Your task to perform on an android device: toggle improve location accuracy Image 0: 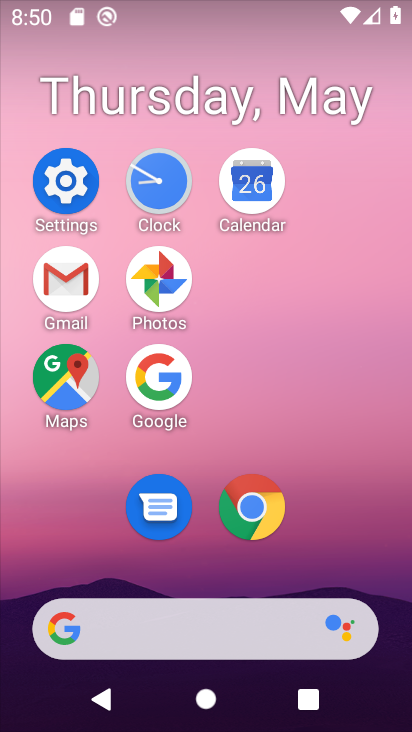
Step 0: click (66, 180)
Your task to perform on an android device: toggle improve location accuracy Image 1: 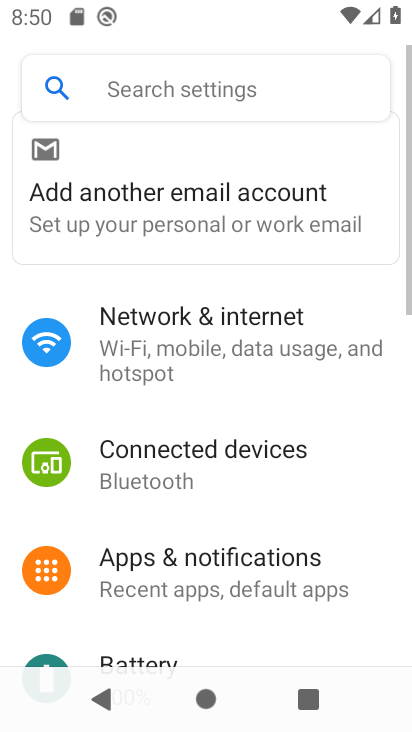
Step 1: drag from (229, 612) to (244, 241)
Your task to perform on an android device: toggle improve location accuracy Image 2: 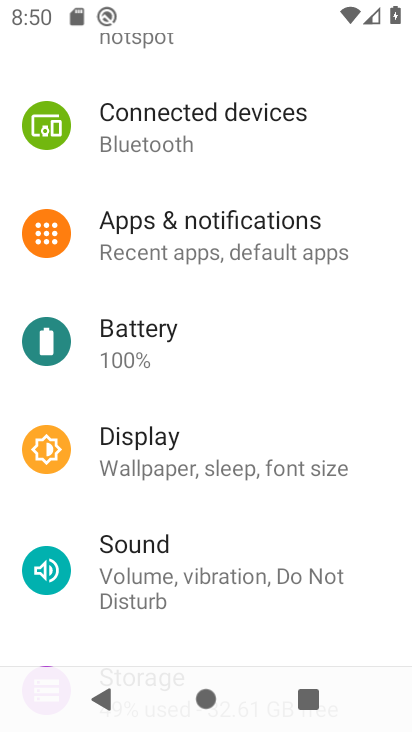
Step 2: drag from (285, 646) to (219, 240)
Your task to perform on an android device: toggle improve location accuracy Image 3: 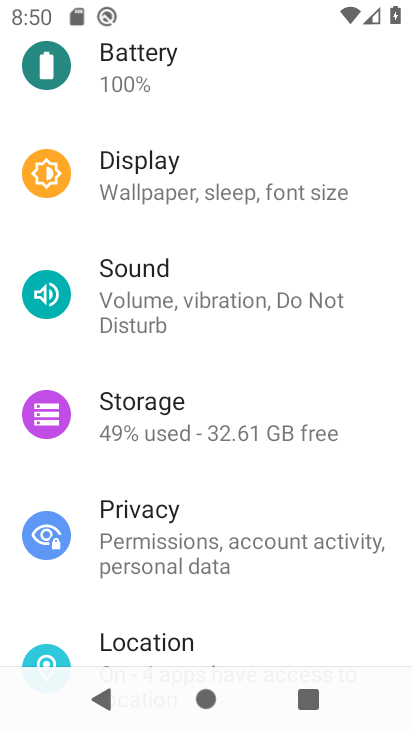
Step 3: click (209, 642)
Your task to perform on an android device: toggle improve location accuracy Image 4: 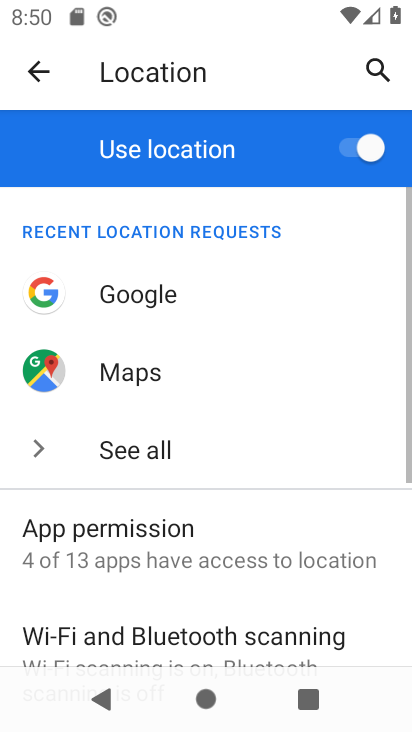
Step 4: drag from (223, 584) to (223, 220)
Your task to perform on an android device: toggle improve location accuracy Image 5: 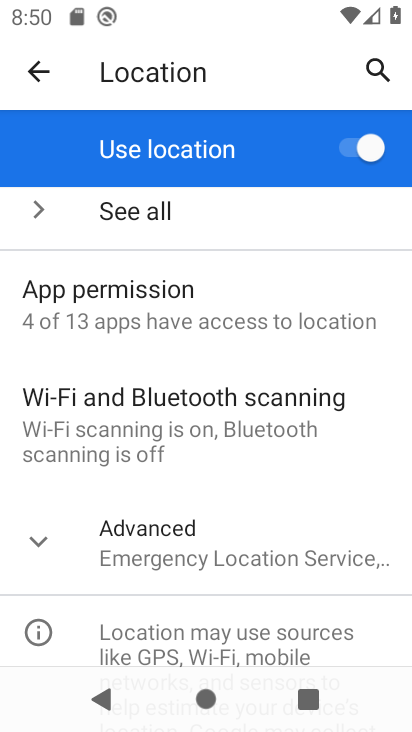
Step 5: click (244, 543)
Your task to perform on an android device: toggle improve location accuracy Image 6: 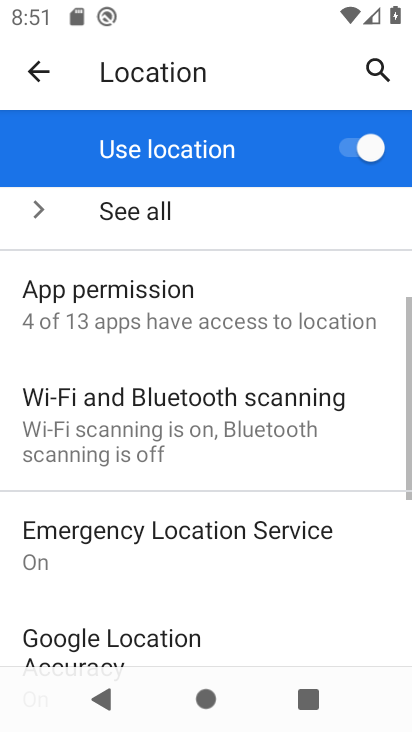
Step 6: drag from (244, 542) to (216, 216)
Your task to perform on an android device: toggle improve location accuracy Image 7: 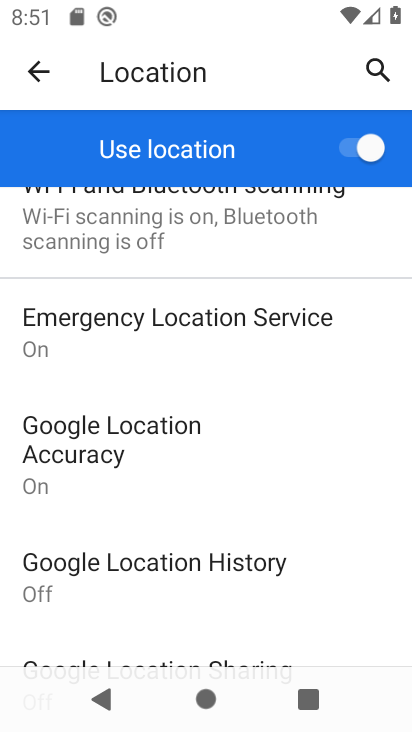
Step 7: click (137, 456)
Your task to perform on an android device: toggle improve location accuracy Image 8: 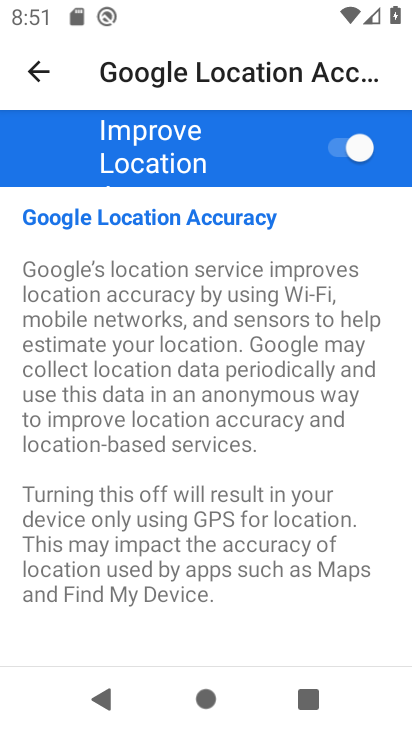
Step 8: click (351, 152)
Your task to perform on an android device: toggle improve location accuracy Image 9: 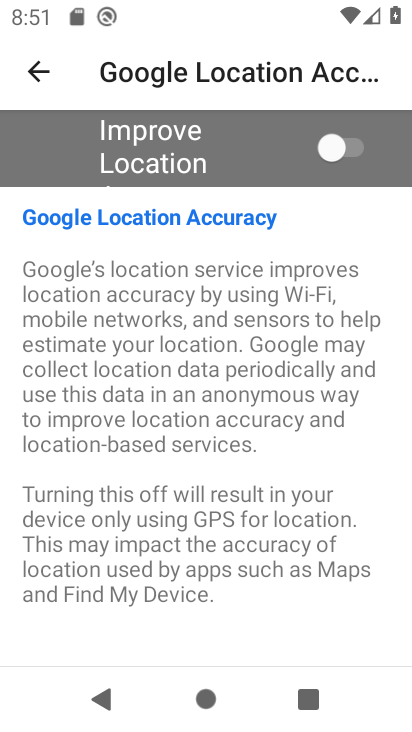
Step 9: task complete